Your task to perform on an android device: Open Chrome and go to the settings page Image 0: 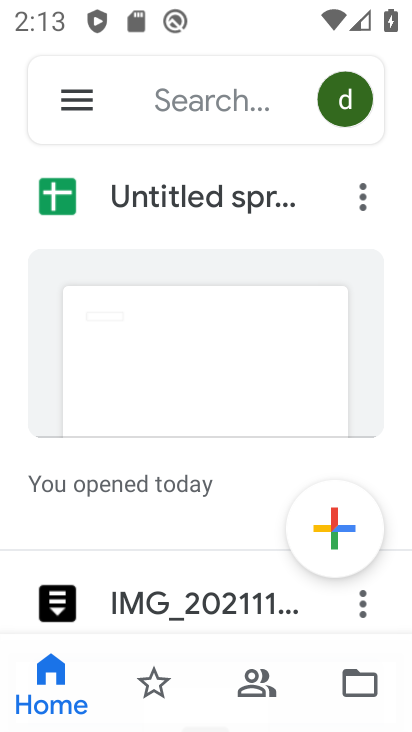
Step 0: press home button
Your task to perform on an android device: Open Chrome and go to the settings page Image 1: 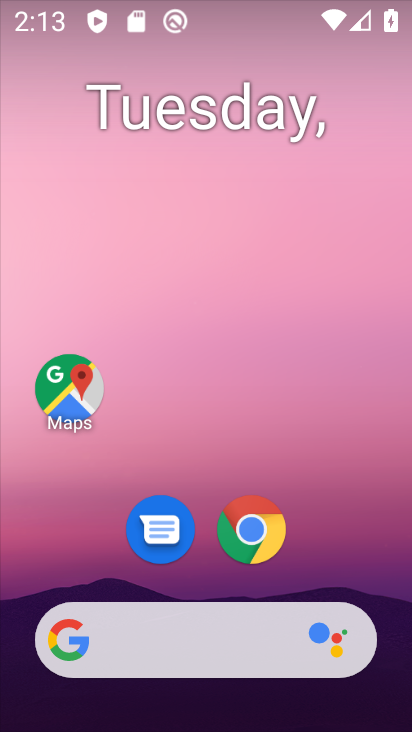
Step 1: click (253, 528)
Your task to perform on an android device: Open Chrome and go to the settings page Image 2: 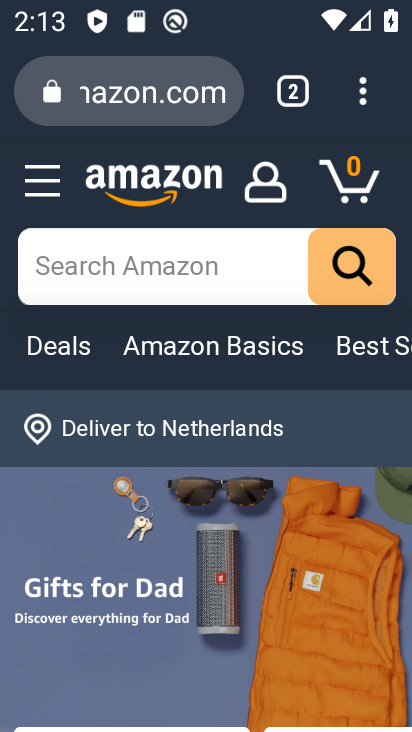
Step 2: click (370, 86)
Your task to perform on an android device: Open Chrome and go to the settings page Image 3: 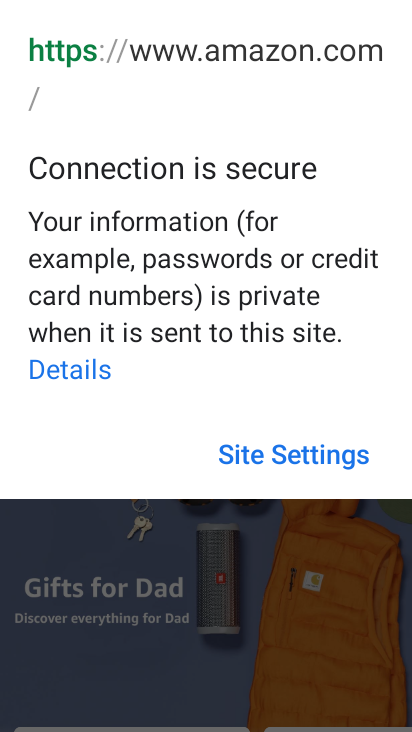
Step 3: click (220, 653)
Your task to perform on an android device: Open Chrome and go to the settings page Image 4: 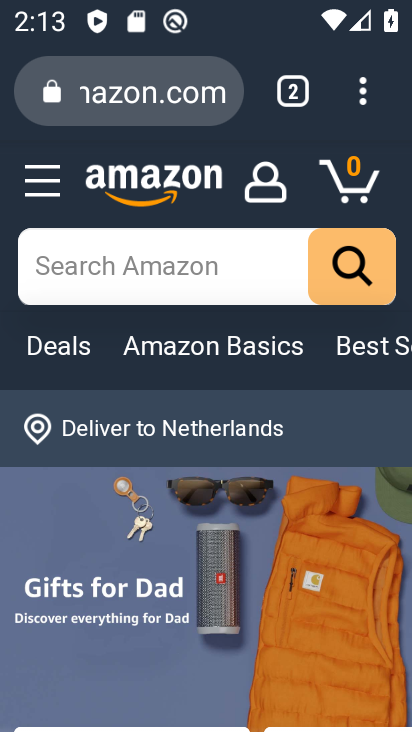
Step 4: click (401, 102)
Your task to perform on an android device: Open Chrome and go to the settings page Image 5: 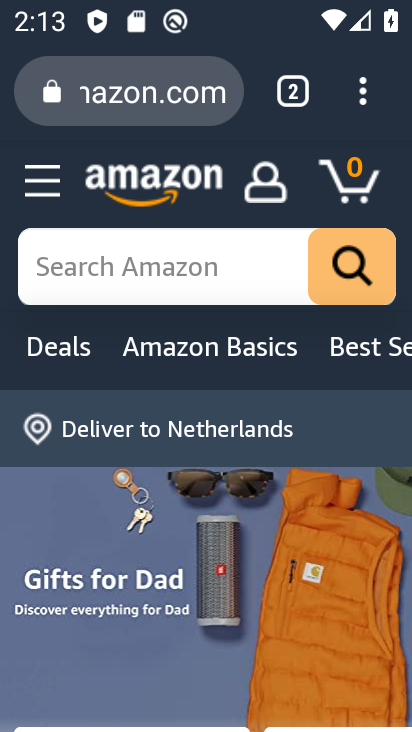
Step 5: click (401, 102)
Your task to perform on an android device: Open Chrome and go to the settings page Image 6: 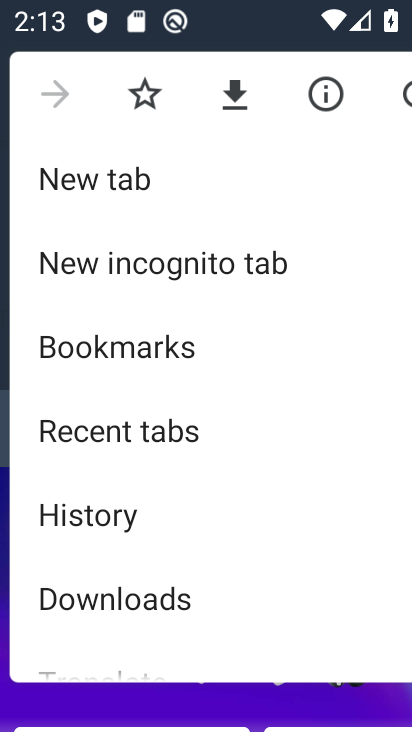
Step 6: drag from (171, 629) to (301, 128)
Your task to perform on an android device: Open Chrome and go to the settings page Image 7: 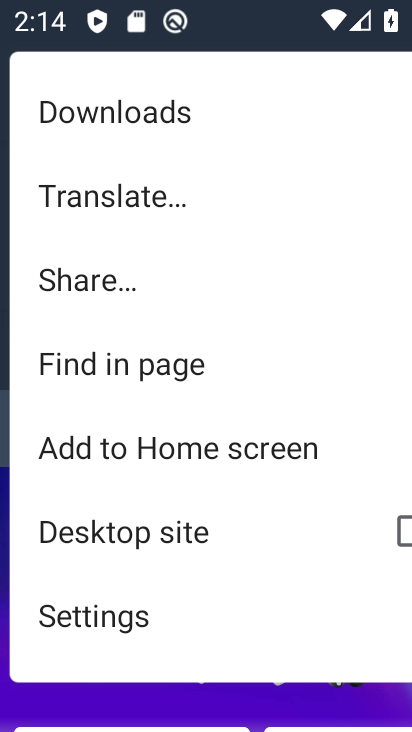
Step 7: click (149, 618)
Your task to perform on an android device: Open Chrome and go to the settings page Image 8: 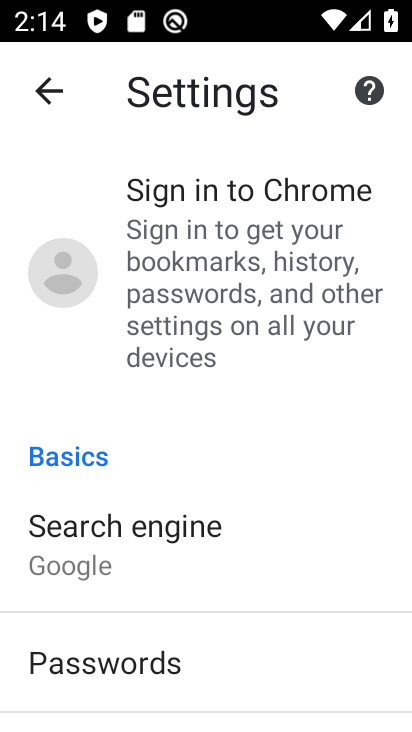
Step 8: task complete